Your task to perform on an android device: all mails in gmail Image 0: 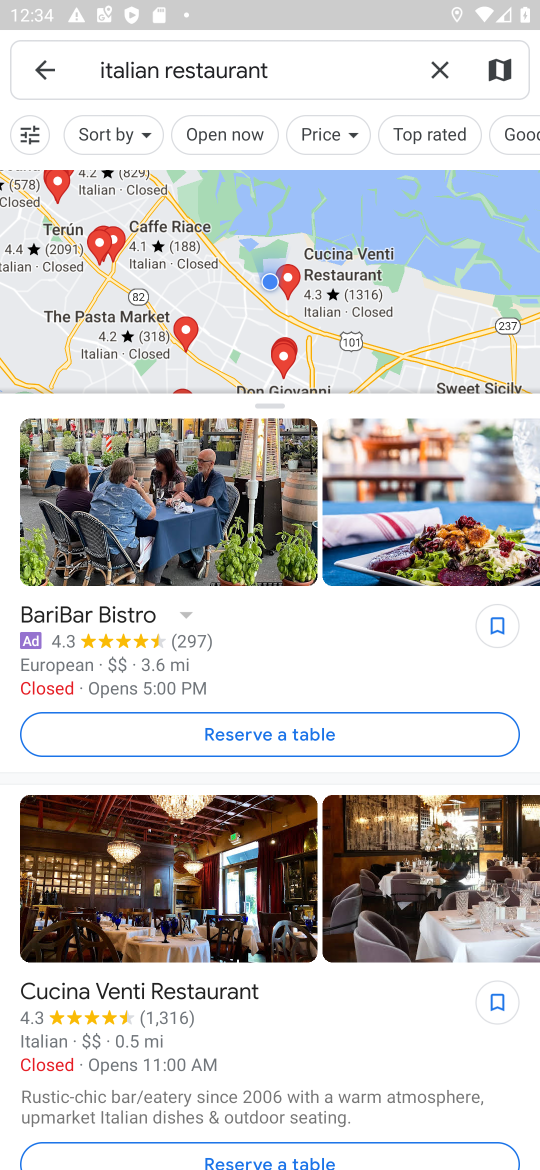
Step 0: press home button
Your task to perform on an android device: all mails in gmail Image 1: 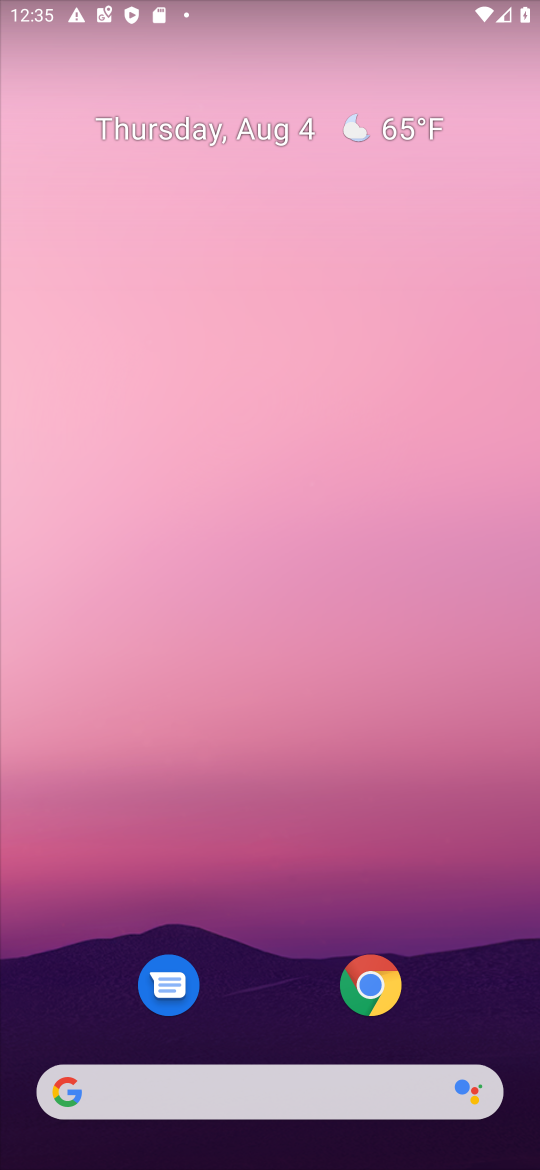
Step 1: drag from (272, 952) to (257, 2)
Your task to perform on an android device: all mails in gmail Image 2: 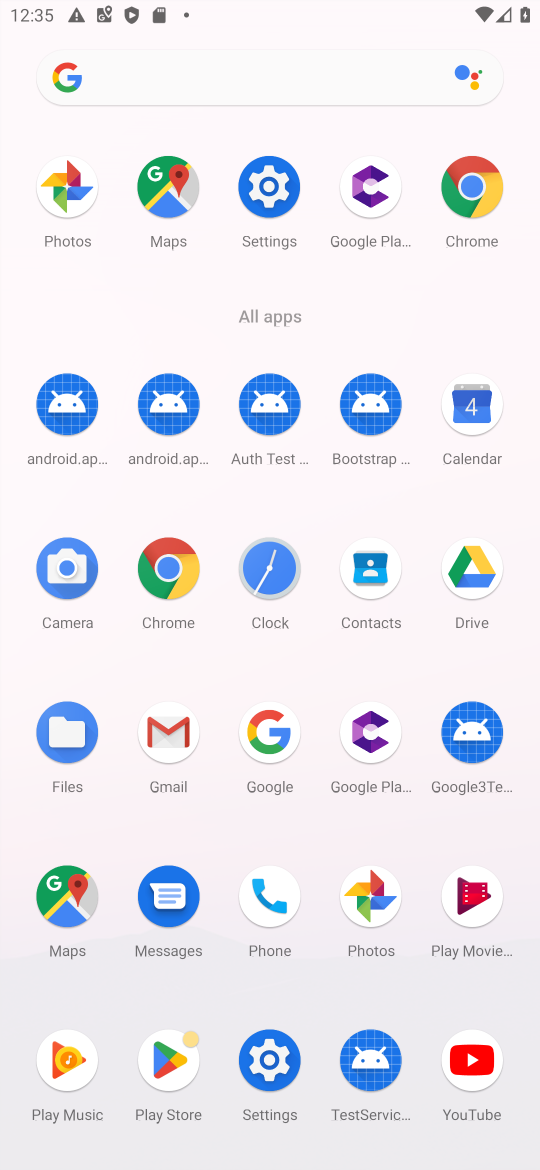
Step 2: click (167, 724)
Your task to perform on an android device: all mails in gmail Image 3: 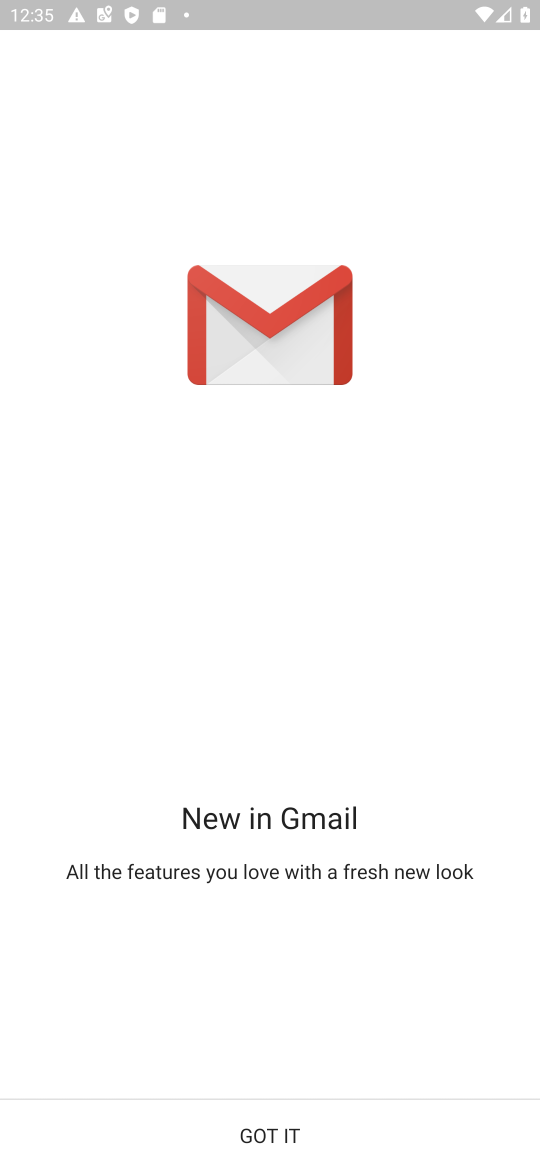
Step 3: click (262, 1128)
Your task to perform on an android device: all mails in gmail Image 4: 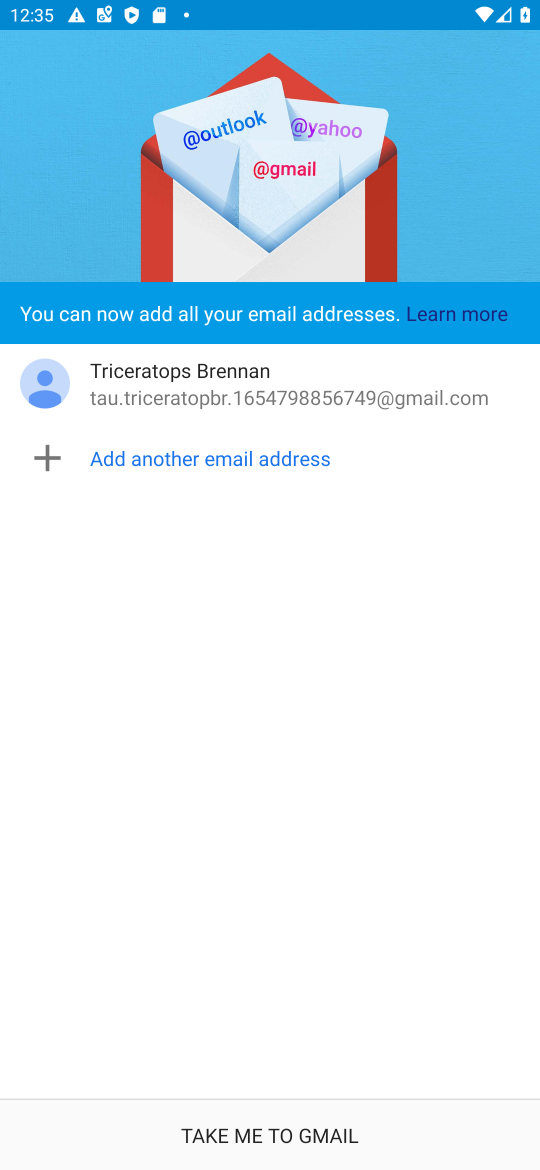
Step 4: click (282, 1124)
Your task to perform on an android device: all mails in gmail Image 5: 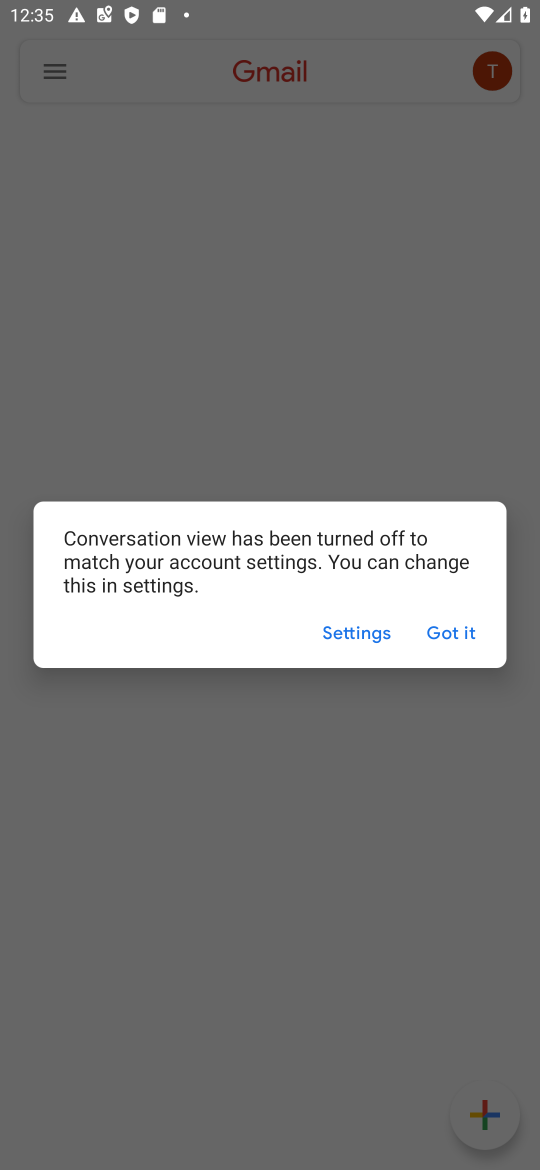
Step 5: click (440, 634)
Your task to perform on an android device: all mails in gmail Image 6: 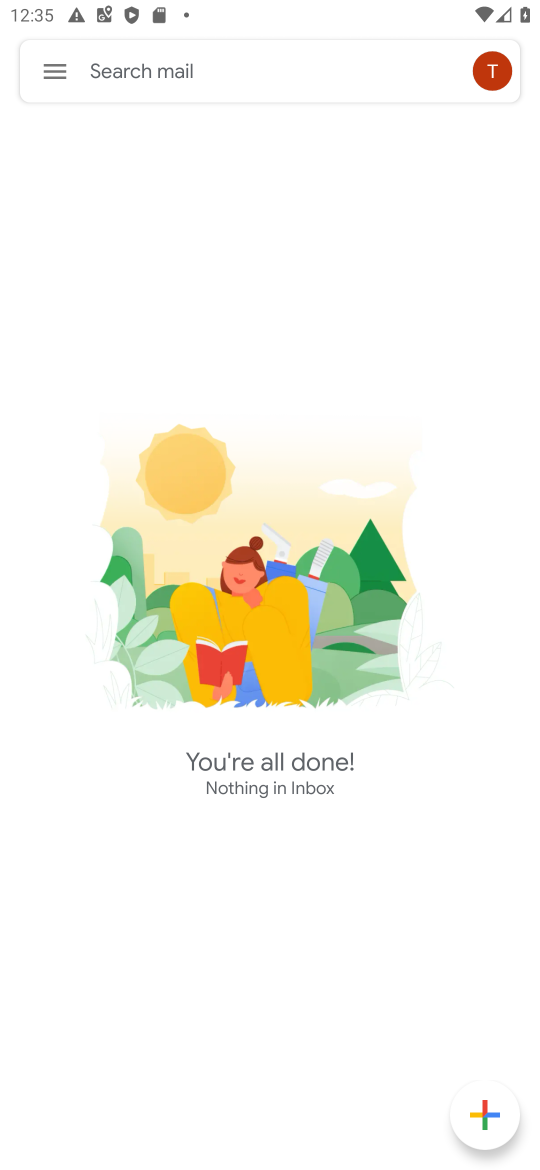
Step 6: click (63, 59)
Your task to perform on an android device: all mails in gmail Image 7: 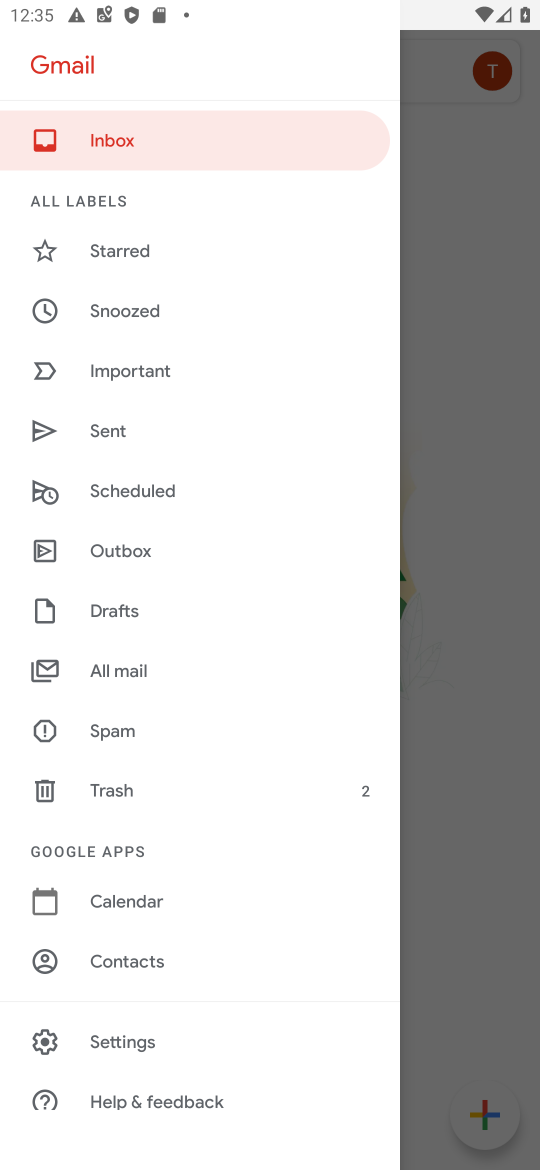
Step 7: click (119, 665)
Your task to perform on an android device: all mails in gmail Image 8: 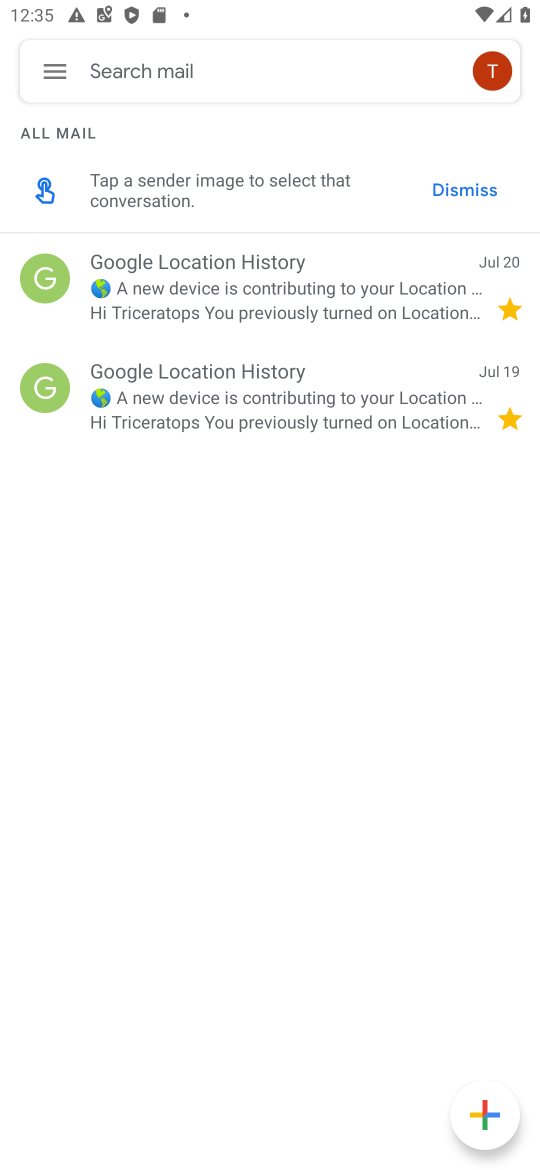
Step 8: task complete